Your task to perform on an android device: choose inbox layout in the gmail app Image 0: 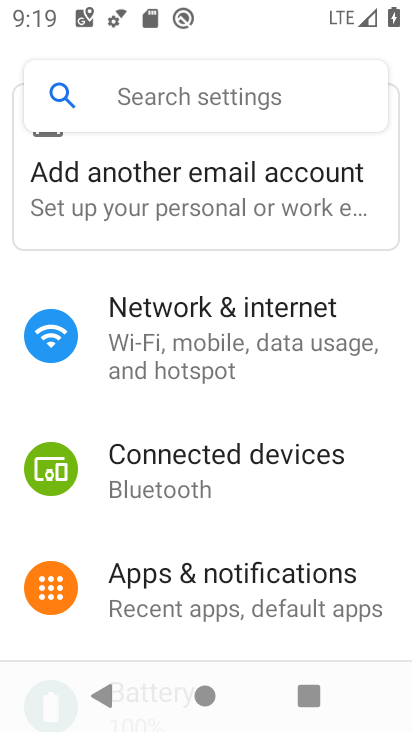
Step 0: press home button
Your task to perform on an android device: choose inbox layout in the gmail app Image 1: 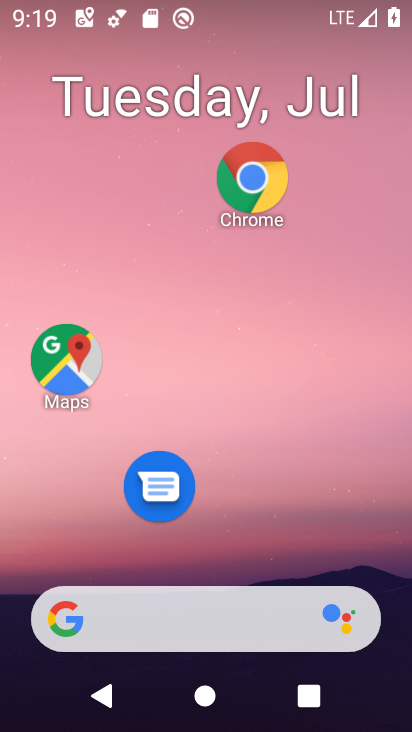
Step 1: drag from (297, 562) to (410, 341)
Your task to perform on an android device: choose inbox layout in the gmail app Image 2: 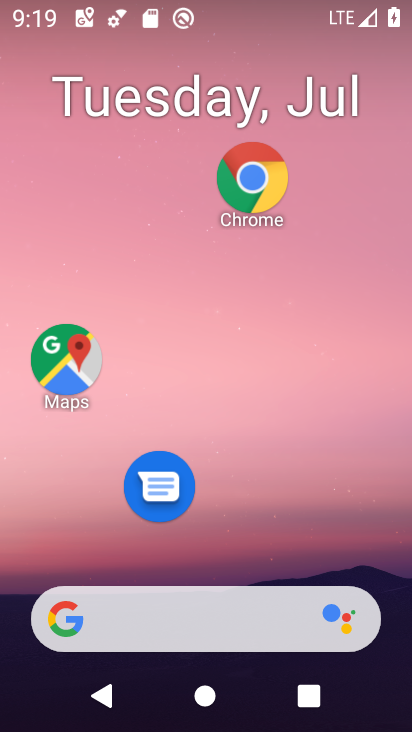
Step 2: drag from (217, 574) to (334, 61)
Your task to perform on an android device: choose inbox layout in the gmail app Image 3: 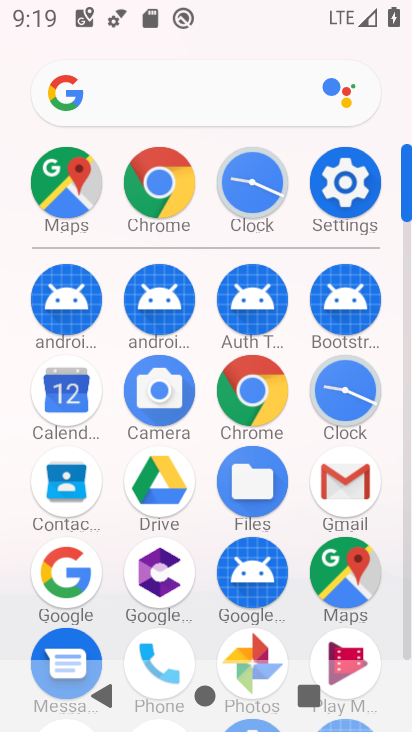
Step 3: click (347, 484)
Your task to perform on an android device: choose inbox layout in the gmail app Image 4: 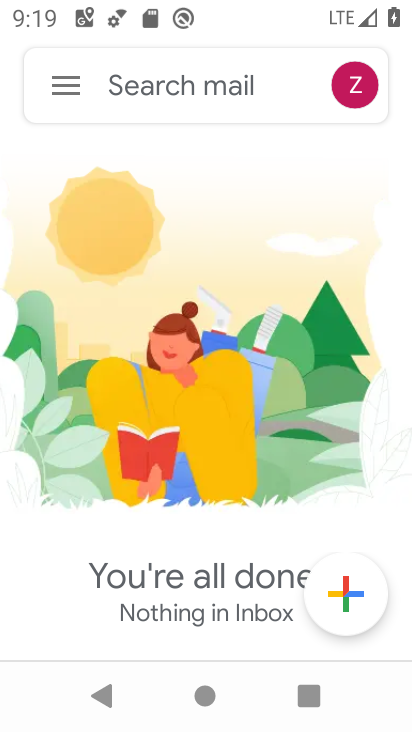
Step 4: click (68, 98)
Your task to perform on an android device: choose inbox layout in the gmail app Image 5: 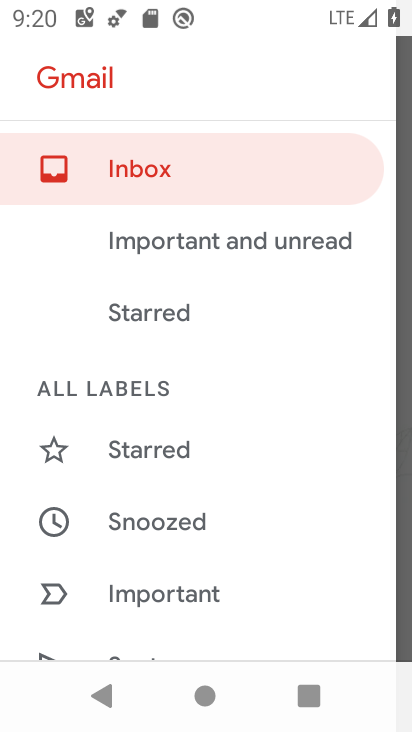
Step 5: drag from (135, 513) to (207, 80)
Your task to perform on an android device: choose inbox layout in the gmail app Image 6: 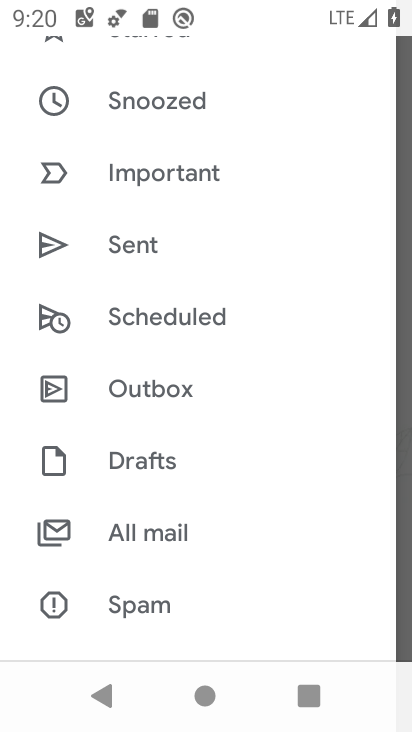
Step 6: drag from (182, 561) to (196, 340)
Your task to perform on an android device: choose inbox layout in the gmail app Image 7: 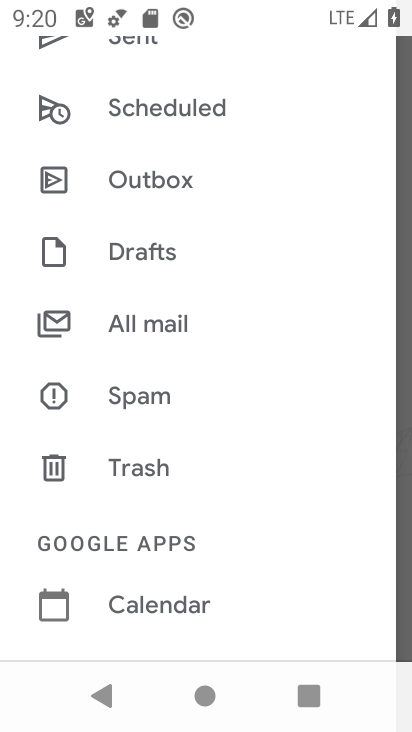
Step 7: drag from (153, 540) to (310, 138)
Your task to perform on an android device: choose inbox layout in the gmail app Image 8: 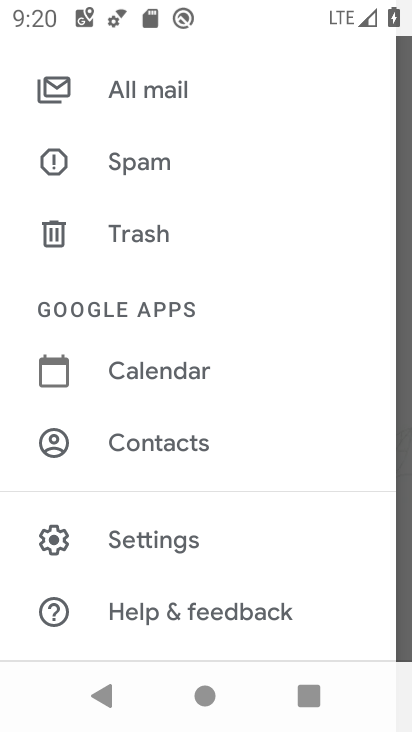
Step 8: click (133, 542)
Your task to perform on an android device: choose inbox layout in the gmail app Image 9: 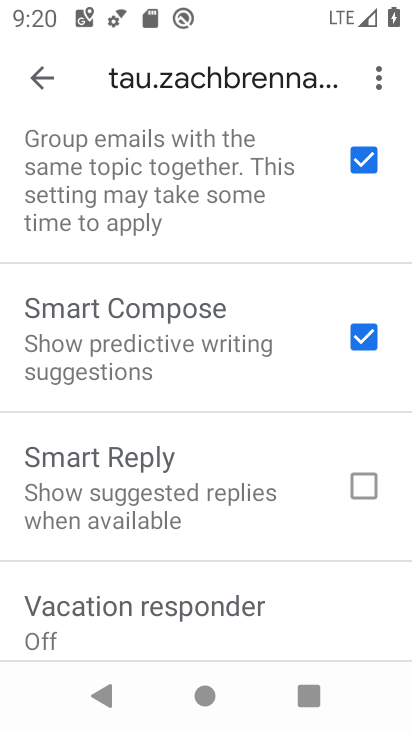
Step 9: task complete